Your task to perform on an android device: Open the web browser Image 0: 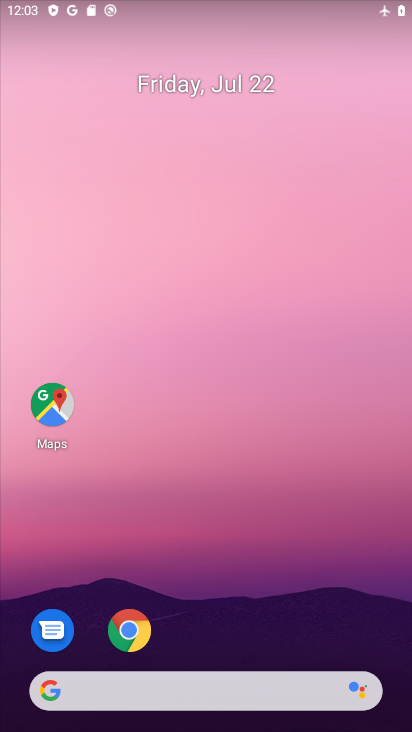
Step 0: click (225, 677)
Your task to perform on an android device: Open the web browser Image 1: 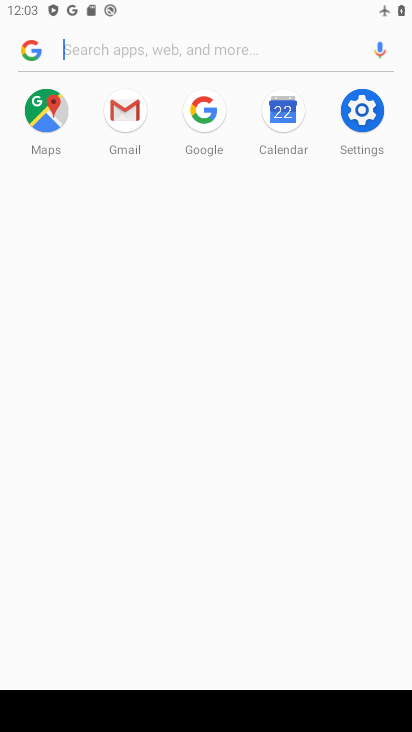
Step 1: click (101, 44)
Your task to perform on an android device: Open the web browser Image 2: 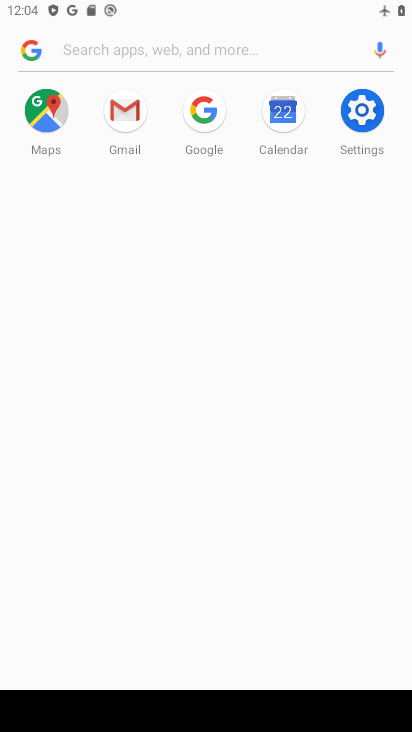
Step 2: task complete